Your task to perform on an android device: Open calendar and show me the second week of next month Image 0: 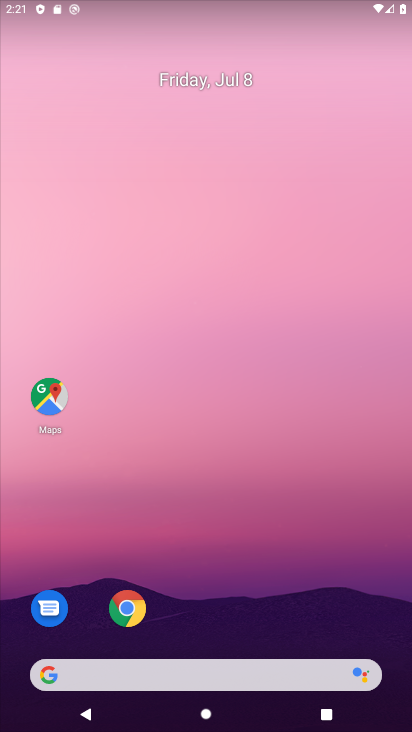
Step 0: drag from (178, 612) to (245, 159)
Your task to perform on an android device: Open calendar and show me the second week of next month Image 1: 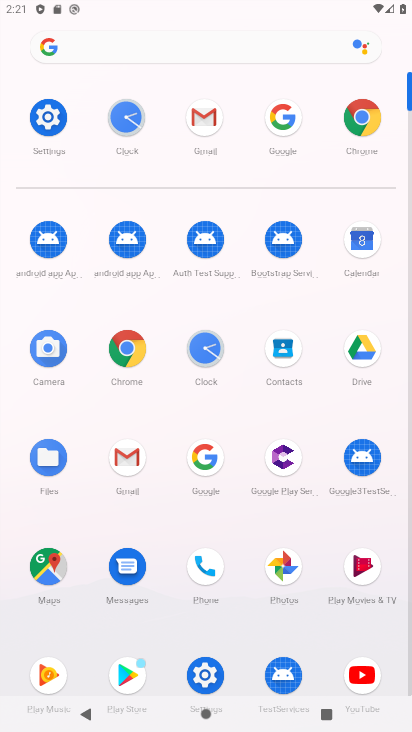
Step 1: click (364, 237)
Your task to perform on an android device: Open calendar and show me the second week of next month Image 2: 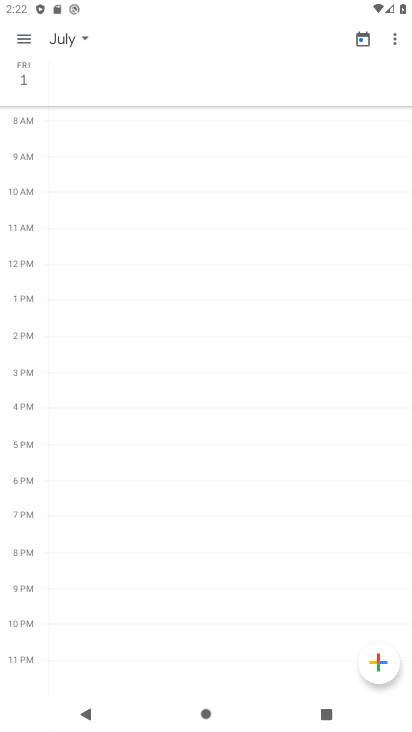
Step 2: click (75, 38)
Your task to perform on an android device: Open calendar and show me the second week of next month Image 3: 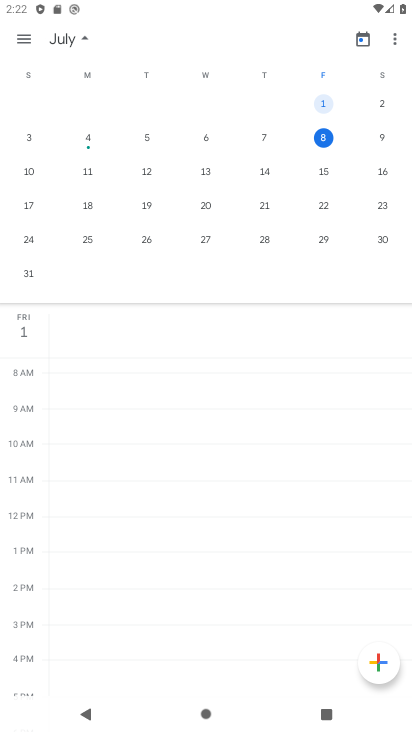
Step 3: click (25, 39)
Your task to perform on an android device: Open calendar and show me the second week of next month Image 4: 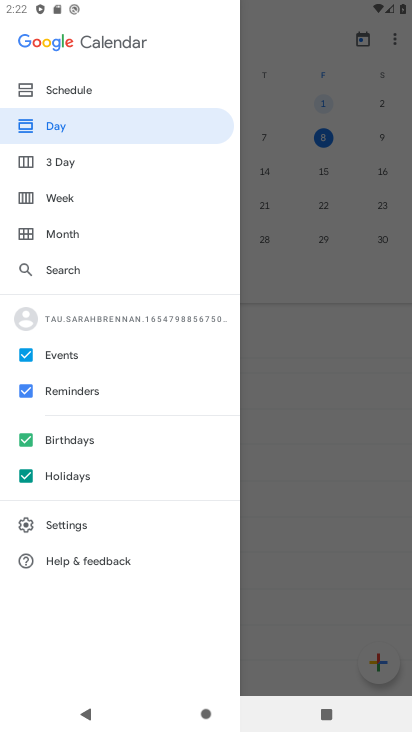
Step 4: click (60, 93)
Your task to perform on an android device: Open calendar and show me the second week of next month Image 5: 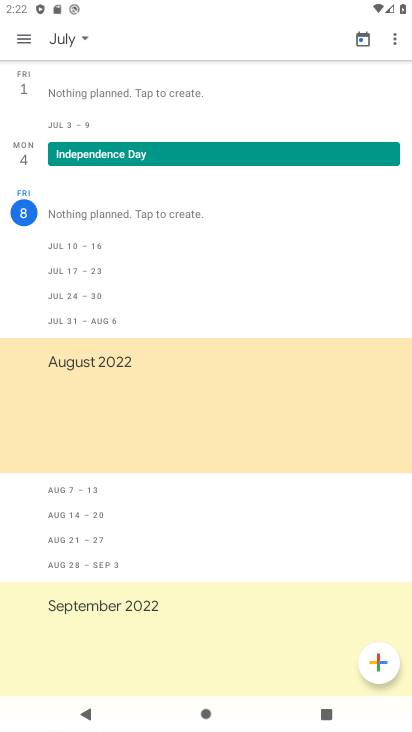
Step 5: click (83, 42)
Your task to perform on an android device: Open calendar and show me the second week of next month Image 6: 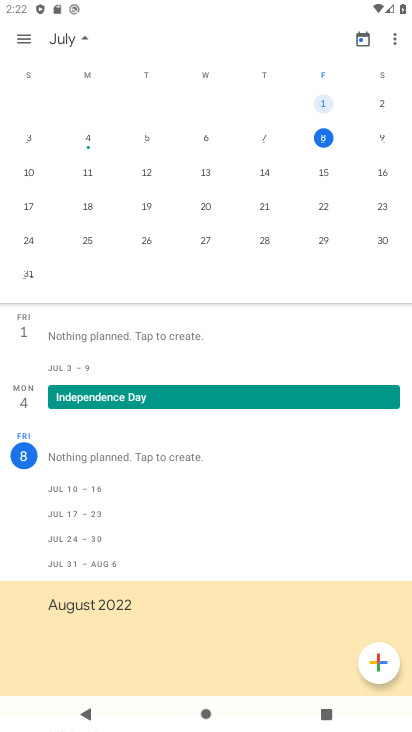
Step 6: drag from (376, 294) to (17, 255)
Your task to perform on an android device: Open calendar and show me the second week of next month Image 7: 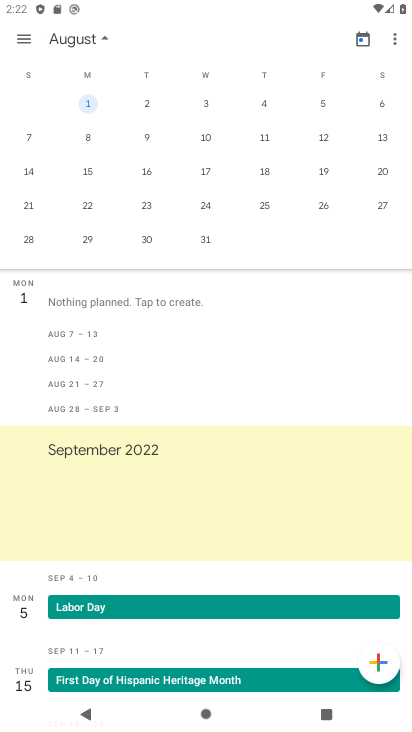
Step 7: click (205, 138)
Your task to perform on an android device: Open calendar and show me the second week of next month Image 8: 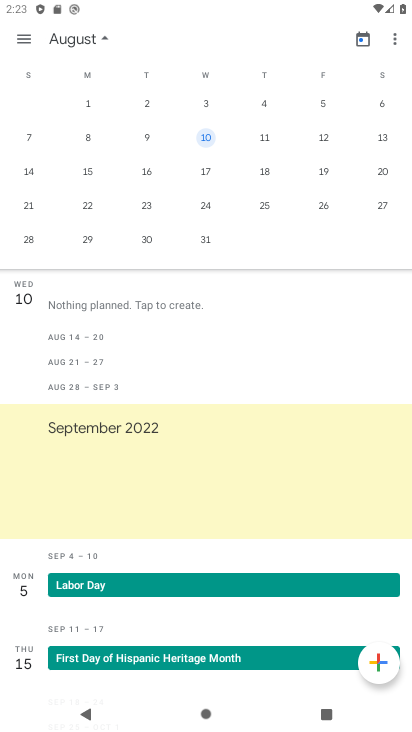
Step 8: task complete